Your task to perform on an android device: Open Chrome and go to settings Image 0: 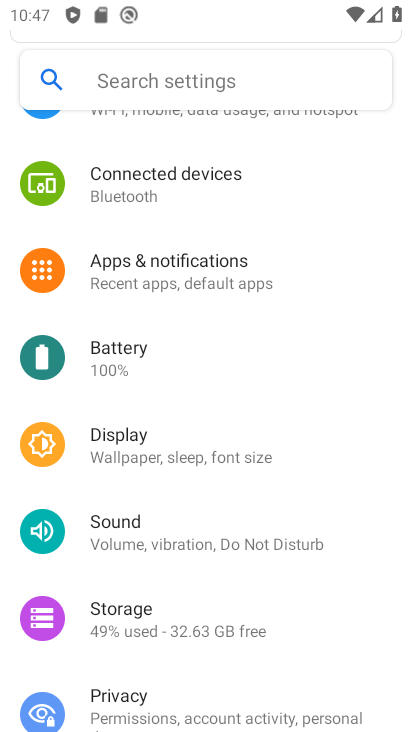
Step 0: press home button
Your task to perform on an android device: Open Chrome and go to settings Image 1: 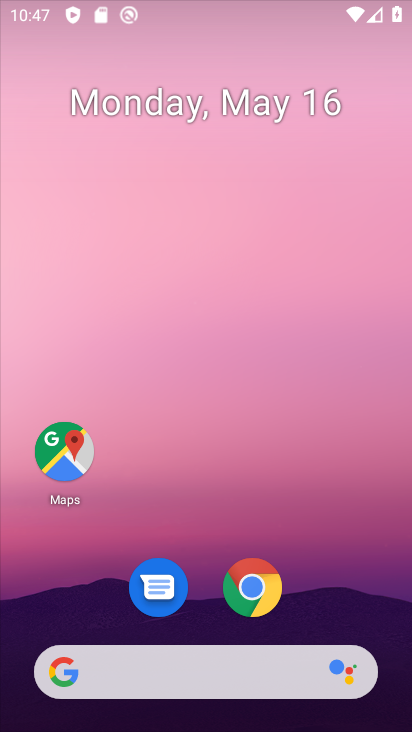
Step 1: drag from (378, 598) to (284, 61)
Your task to perform on an android device: Open Chrome and go to settings Image 2: 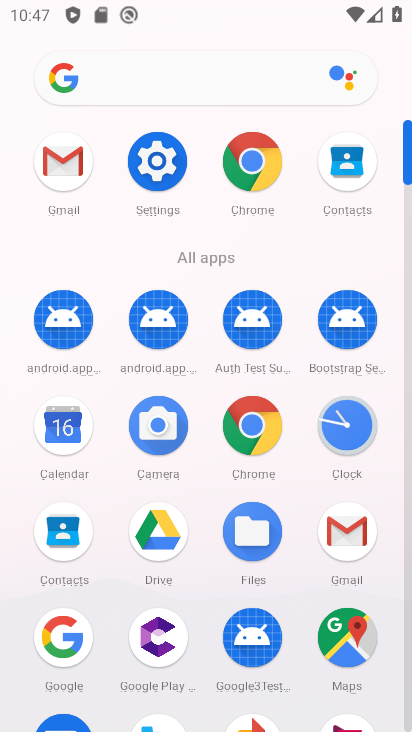
Step 2: click (253, 174)
Your task to perform on an android device: Open Chrome and go to settings Image 3: 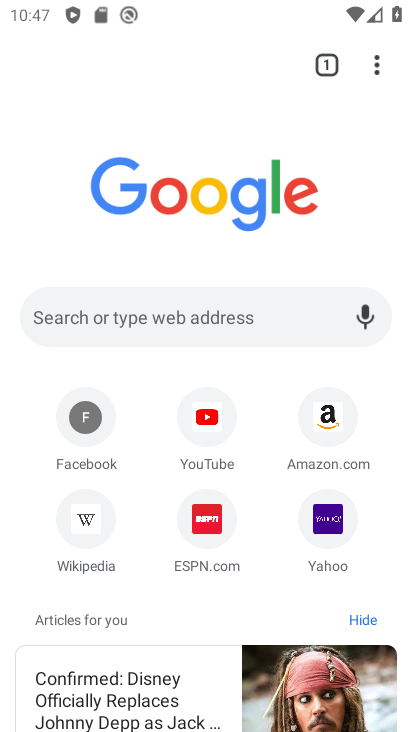
Step 3: click (380, 56)
Your task to perform on an android device: Open Chrome and go to settings Image 4: 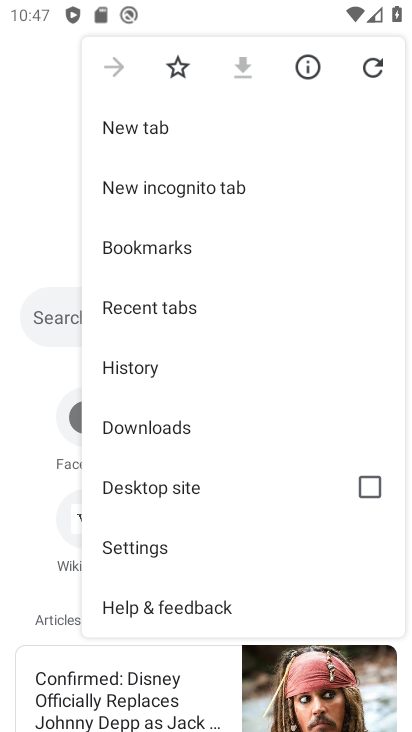
Step 4: click (181, 551)
Your task to perform on an android device: Open Chrome and go to settings Image 5: 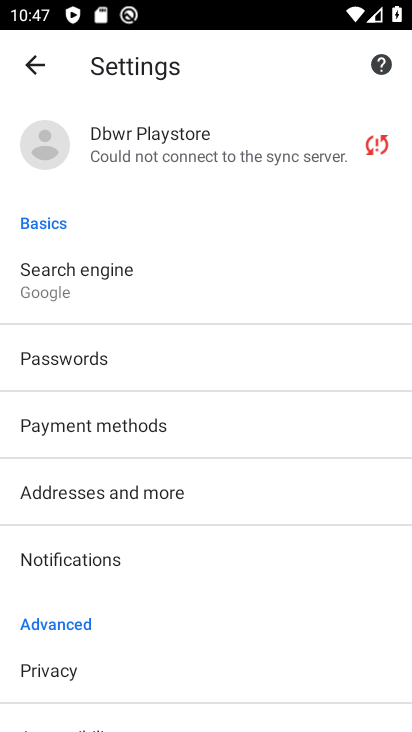
Step 5: task complete